Your task to perform on an android device: change keyboard looks Image 0: 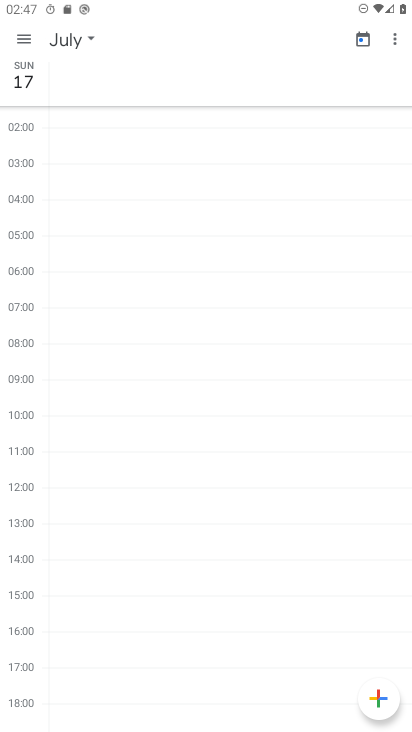
Step 0: press home button
Your task to perform on an android device: change keyboard looks Image 1: 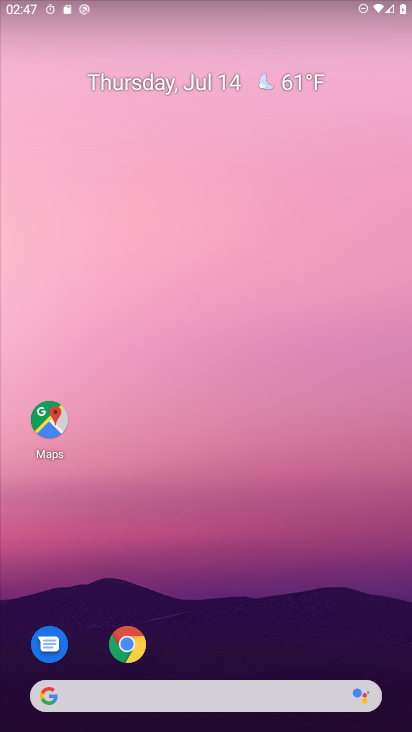
Step 1: drag from (311, 549) to (299, 65)
Your task to perform on an android device: change keyboard looks Image 2: 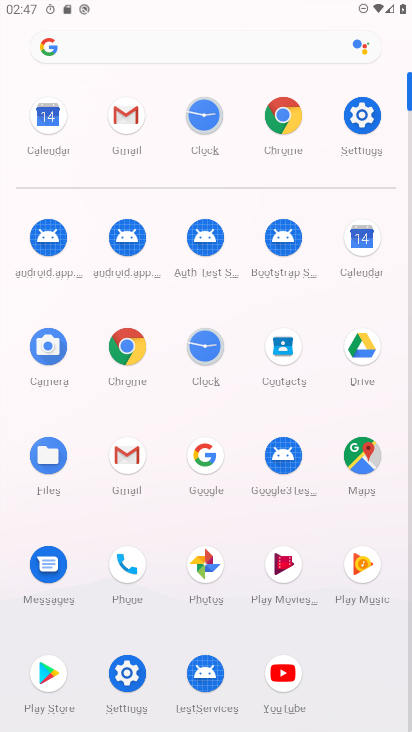
Step 2: click (365, 107)
Your task to perform on an android device: change keyboard looks Image 3: 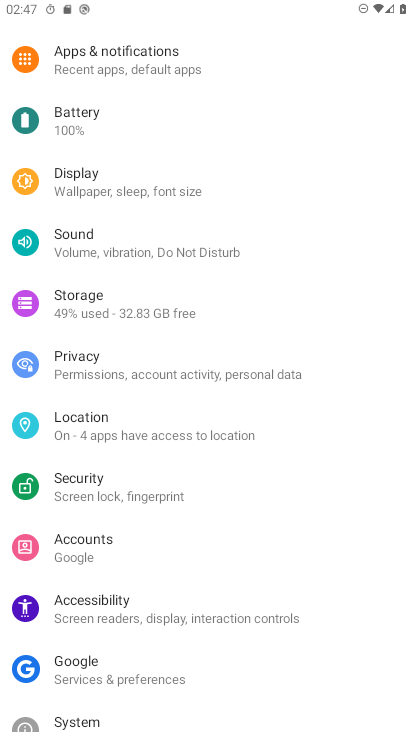
Step 3: drag from (157, 663) to (248, 114)
Your task to perform on an android device: change keyboard looks Image 4: 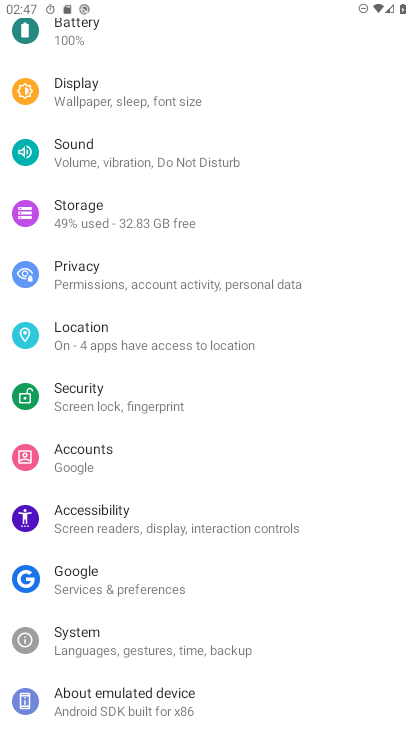
Step 4: click (104, 636)
Your task to perform on an android device: change keyboard looks Image 5: 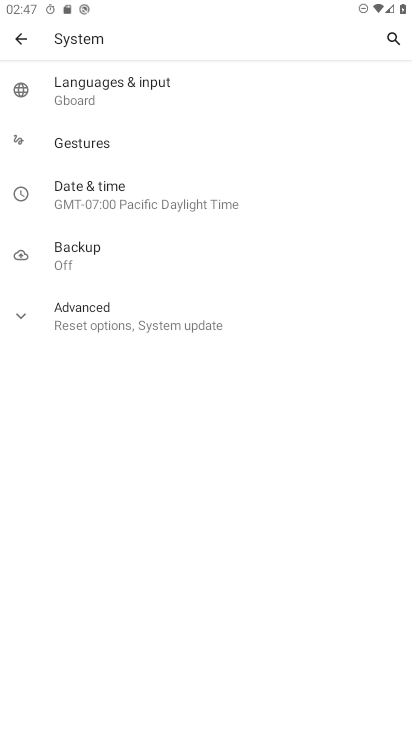
Step 5: click (162, 91)
Your task to perform on an android device: change keyboard looks Image 6: 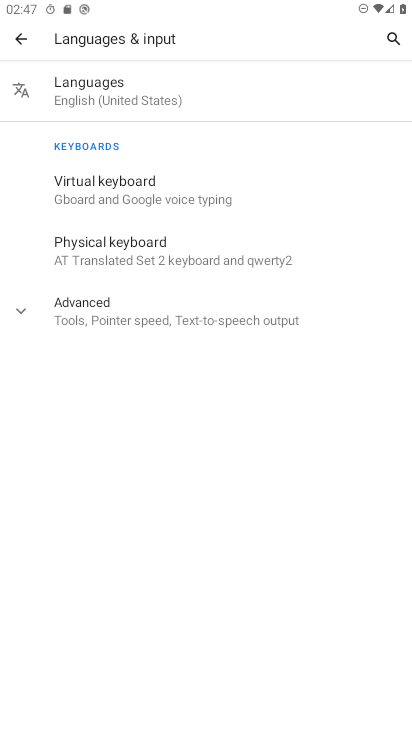
Step 6: click (82, 184)
Your task to perform on an android device: change keyboard looks Image 7: 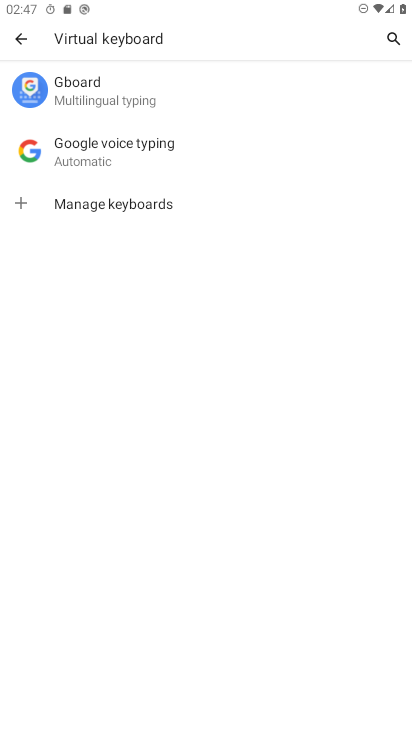
Step 7: click (94, 83)
Your task to perform on an android device: change keyboard looks Image 8: 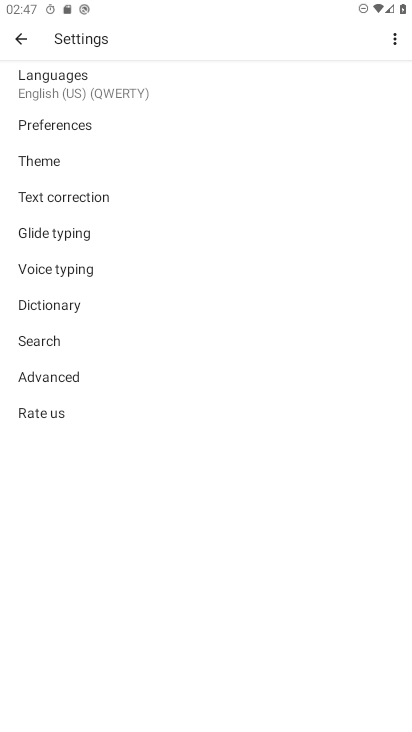
Step 8: click (54, 157)
Your task to perform on an android device: change keyboard looks Image 9: 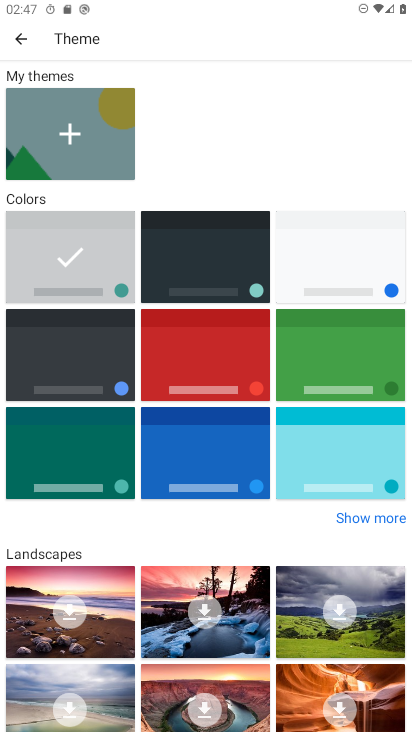
Step 9: click (341, 249)
Your task to perform on an android device: change keyboard looks Image 10: 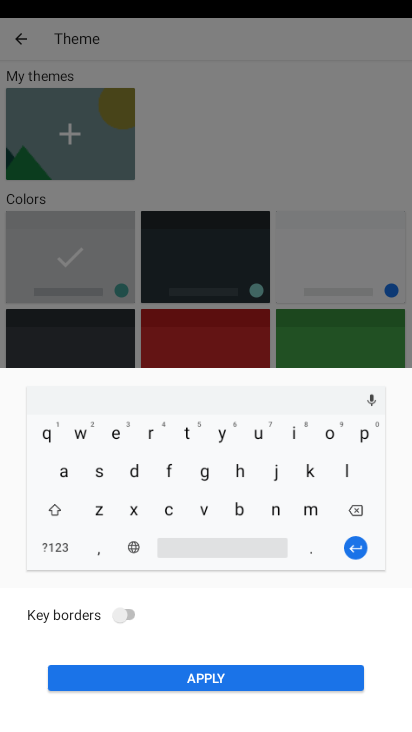
Step 10: click (262, 685)
Your task to perform on an android device: change keyboard looks Image 11: 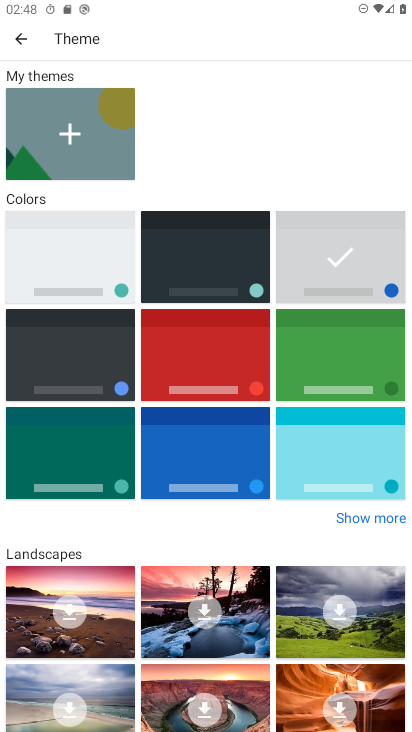
Step 11: task complete